Your task to perform on an android device: turn on location history Image 0: 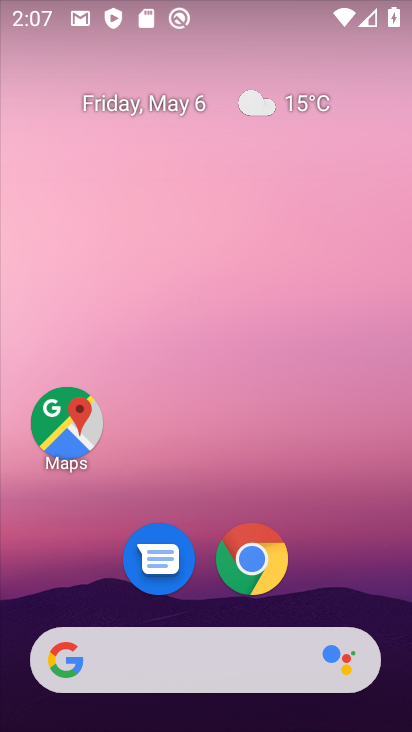
Step 0: drag from (210, 610) to (200, 107)
Your task to perform on an android device: turn on location history Image 1: 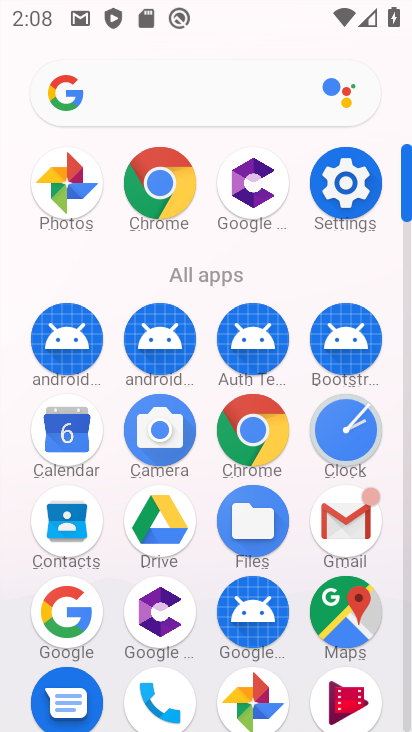
Step 1: click (338, 178)
Your task to perform on an android device: turn on location history Image 2: 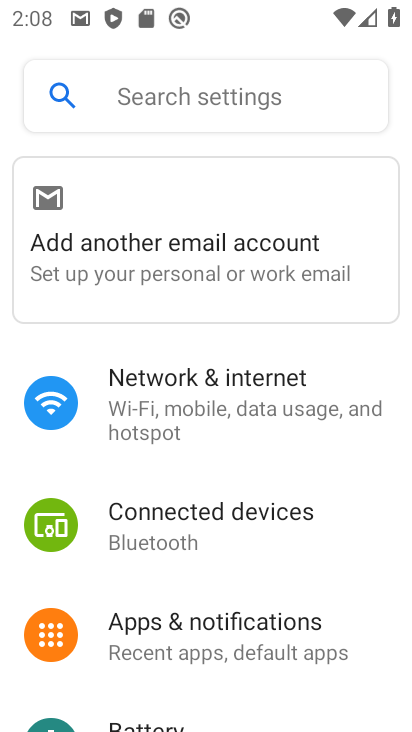
Step 2: drag from (234, 678) to (217, 142)
Your task to perform on an android device: turn on location history Image 3: 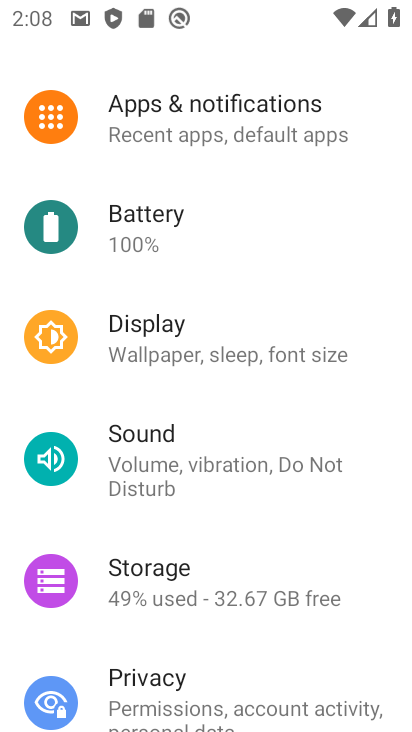
Step 3: drag from (214, 662) to (225, 164)
Your task to perform on an android device: turn on location history Image 4: 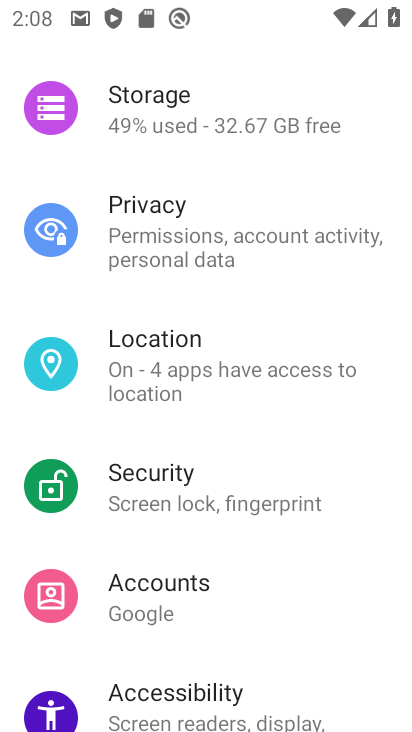
Step 4: click (219, 347)
Your task to perform on an android device: turn on location history Image 5: 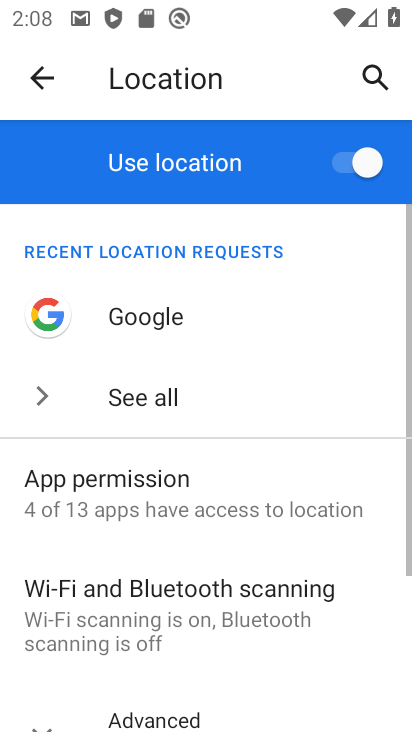
Step 5: drag from (233, 668) to (236, 196)
Your task to perform on an android device: turn on location history Image 6: 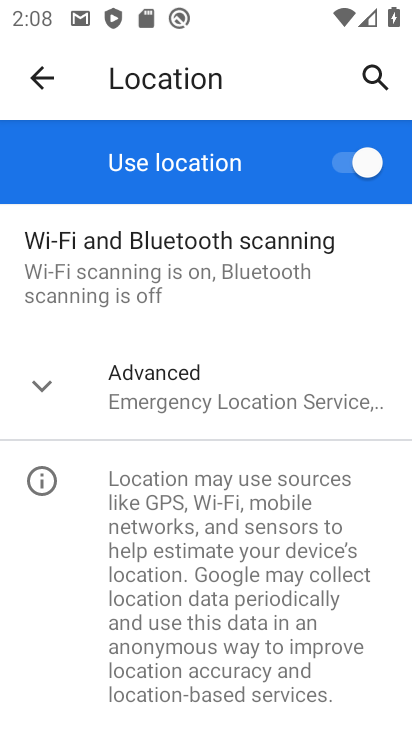
Step 6: click (34, 380)
Your task to perform on an android device: turn on location history Image 7: 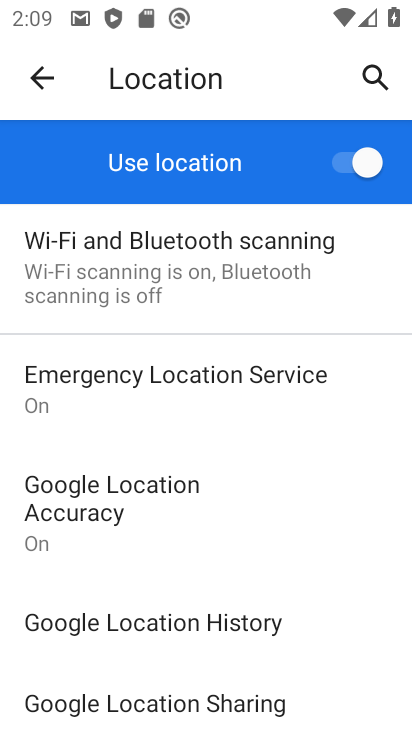
Step 7: click (195, 625)
Your task to perform on an android device: turn on location history Image 8: 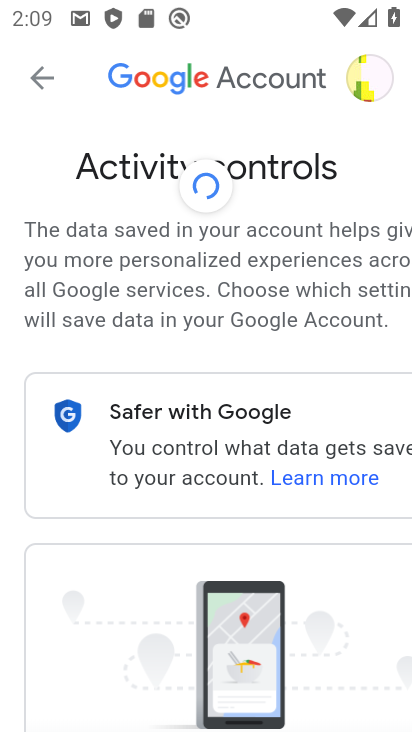
Step 8: task complete